Your task to perform on an android device: change notification settings in the gmail app Image 0: 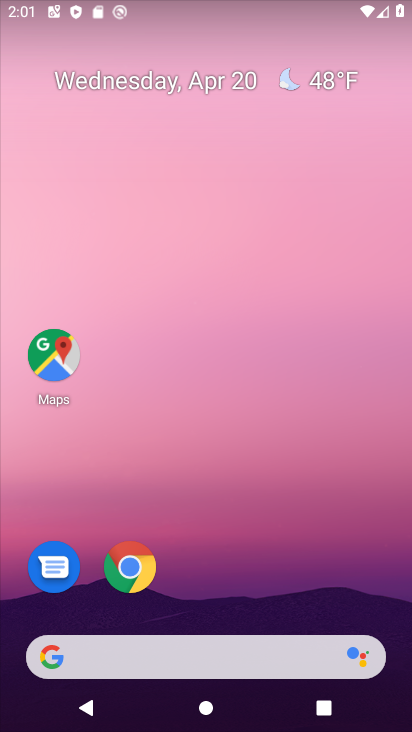
Step 0: drag from (194, 604) to (221, 108)
Your task to perform on an android device: change notification settings in the gmail app Image 1: 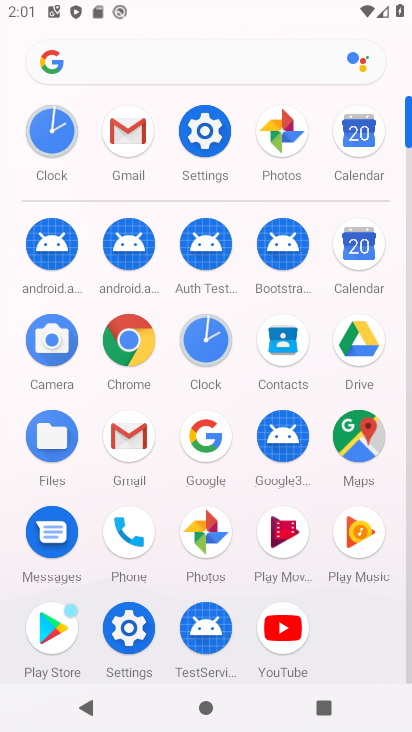
Step 1: click (138, 137)
Your task to perform on an android device: change notification settings in the gmail app Image 2: 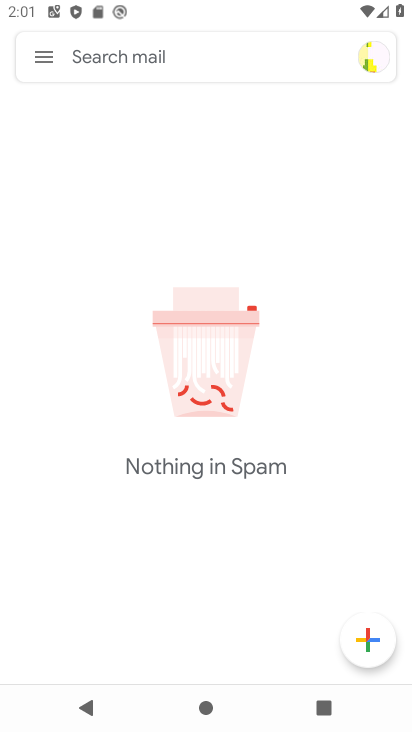
Step 2: click (51, 57)
Your task to perform on an android device: change notification settings in the gmail app Image 3: 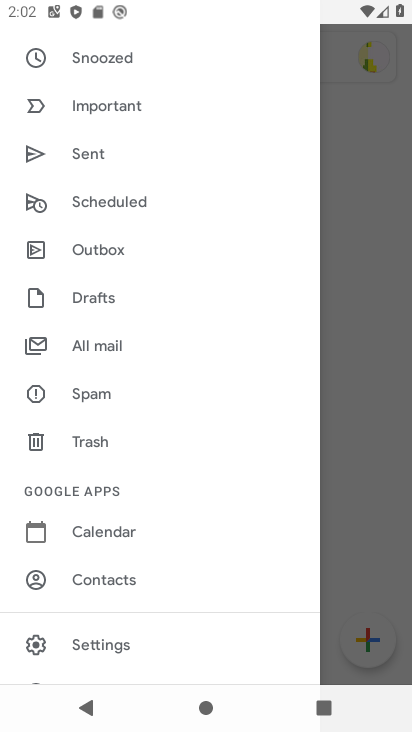
Step 3: click (127, 656)
Your task to perform on an android device: change notification settings in the gmail app Image 4: 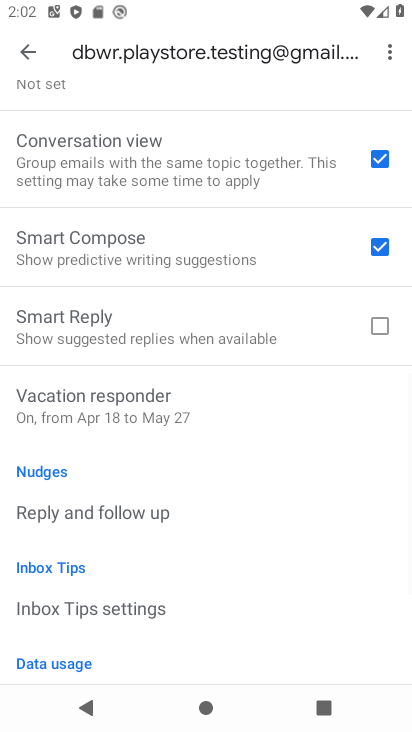
Step 4: drag from (103, 631) to (122, 160)
Your task to perform on an android device: change notification settings in the gmail app Image 5: 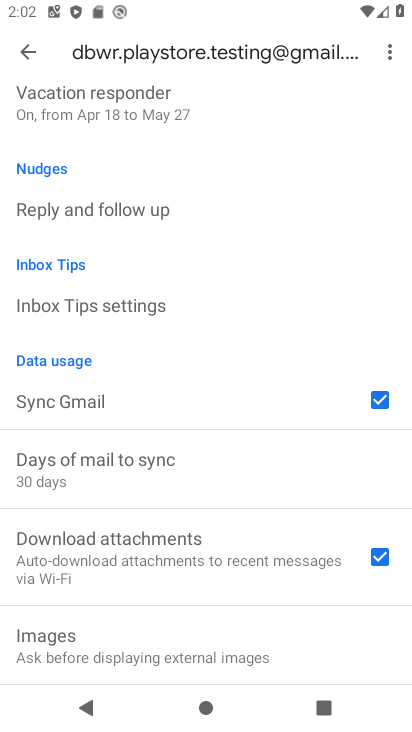
Step 5: drag from (56, 565) to (107, 564)
Your task to perform on an android device: change notification settings in the gmail app Image 6: 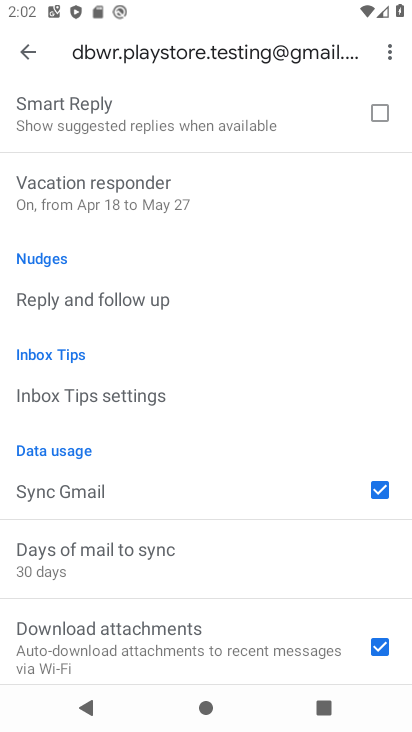
Step 6: drag from (168, 220) to (178, 507)
Your task to perform on an android device: change notification settings in the gmail app Image 7: 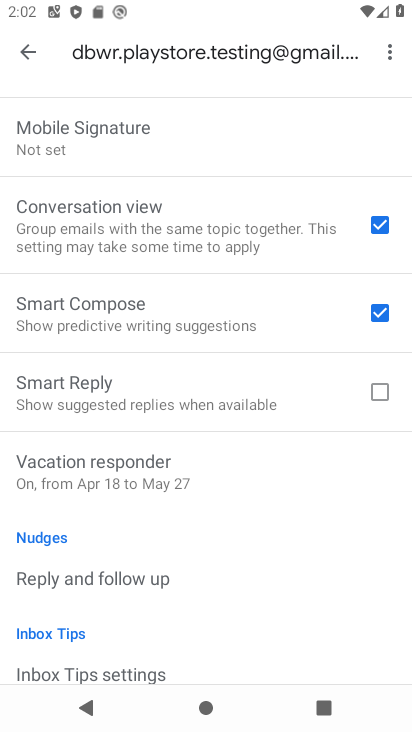
Step 7: drag from (211, 295) to (256, 579)
Your task to perform on an android device: change notification settings in the gmail app Image 8: 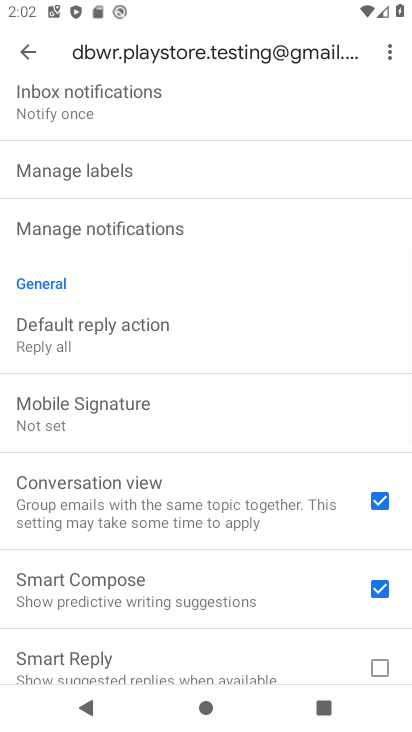
Step 8: drag from (193, 202) to (218, 509)
Your task to perform on an android device: change notification settings in the gmail app Image 9: 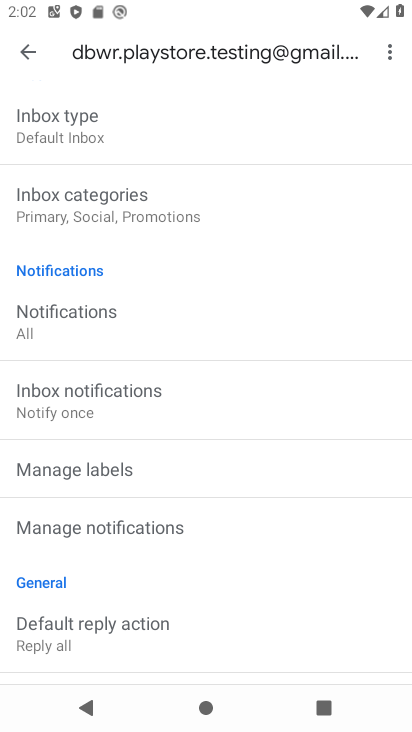
Step 9: click (127, 313)
Your task to perform on an android device: change notification settings in the gmail app Image 10: 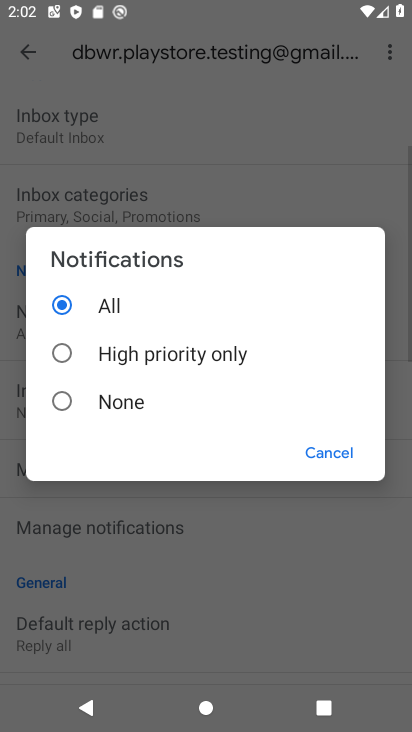
Step 10: click (135, 366)
Your task to perform on an android device: change notification settings in the gmail app Image 11: 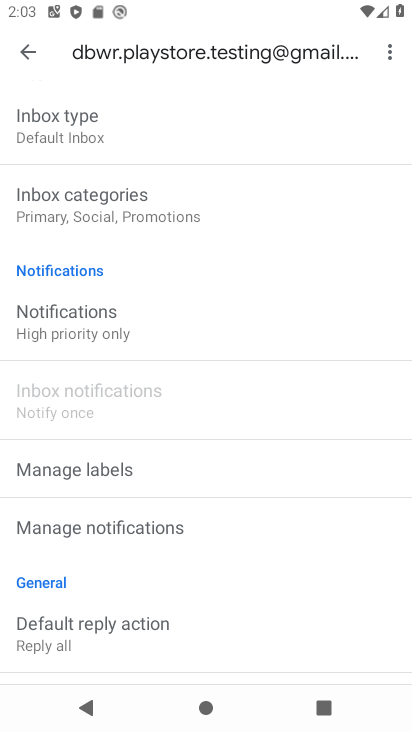
Step 11: task complete